Your task to perform on an android device: Do I have any events tomorrow? Image 0: 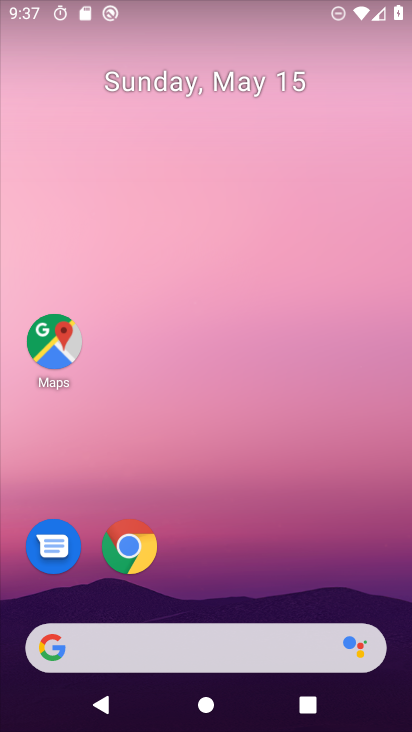
Step 0: drag from (301, 549) to (358, 28)
Your task to perform on an android device: Do I have any events tomorrow? Image 1: 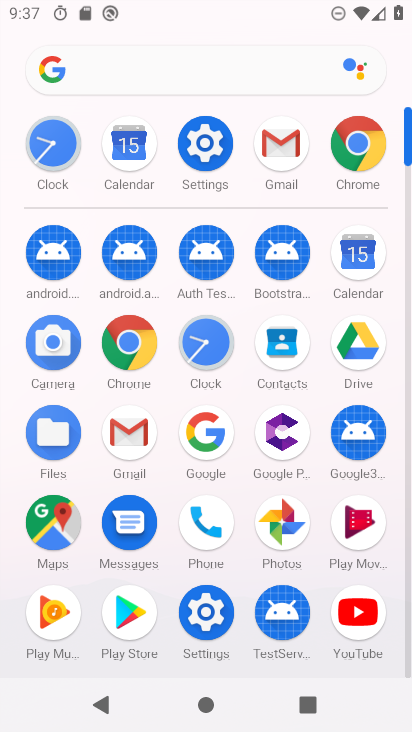
Step 1: click (132, 145)
Your task to perform on an android device: Do I have any events tomorrow? Image 2: 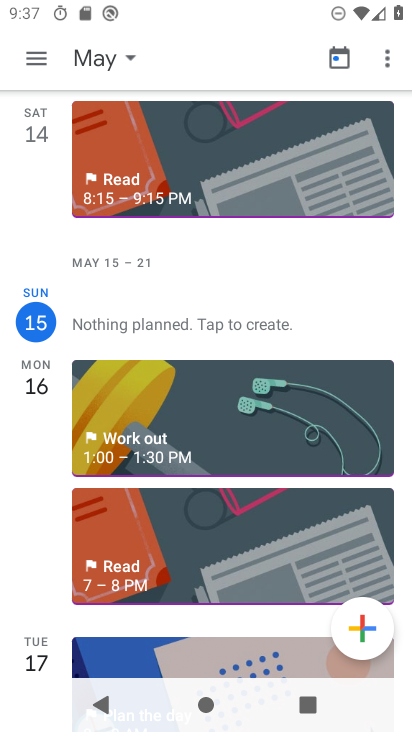
Step 2: task complete